Your task to perform on an android device: turn on translation in the chrome app Image 0: 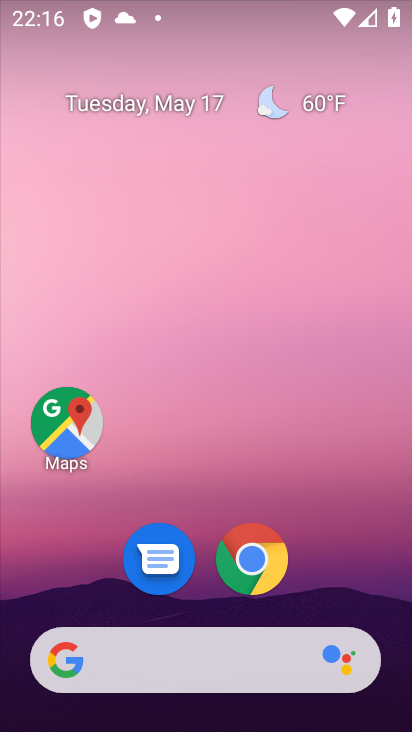
Step 0: click (252, 563)
Your task to perform on an android device: turn on translation in the chrome app Image 1: 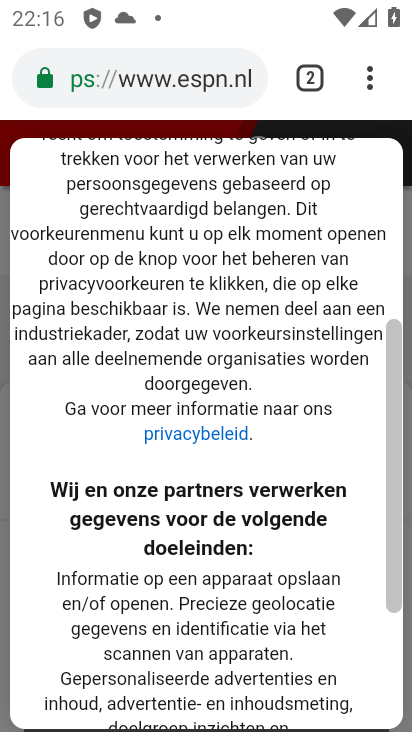
Step 1: drag from (374, 69) to (153, 617)
Your task to perform on an android device: turn on translation in the chrome app Image 2: 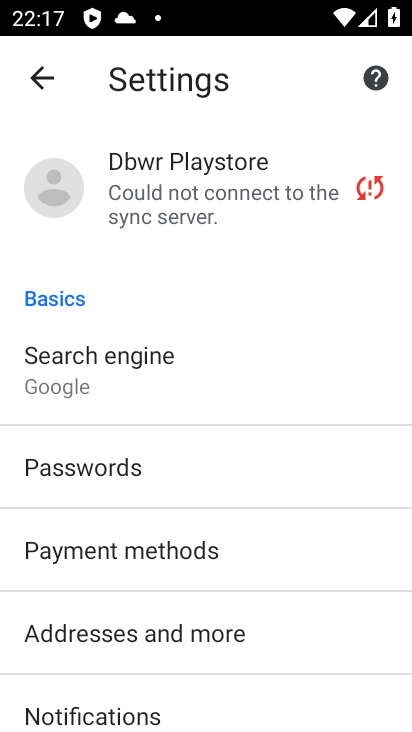
Step 2: drag from (261, 537) to (288, 56)
Your task to perform on an android device: turn on translation in the chrome app Image 3: 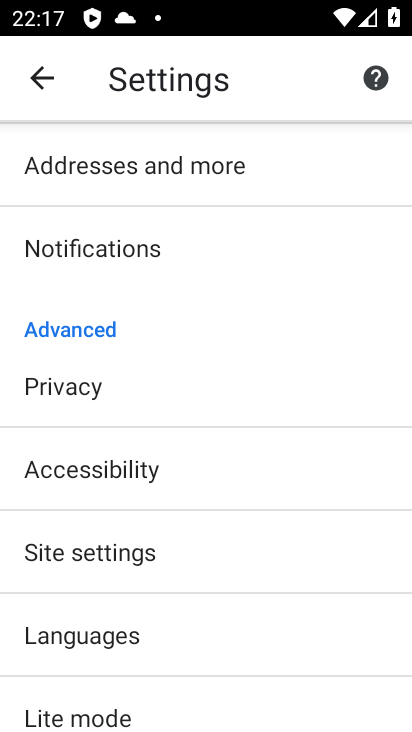
Step 3: drag from (187, 674) to (218, 452)
Your task to perform on an android device: turn on translation in the chrome app Image 4: 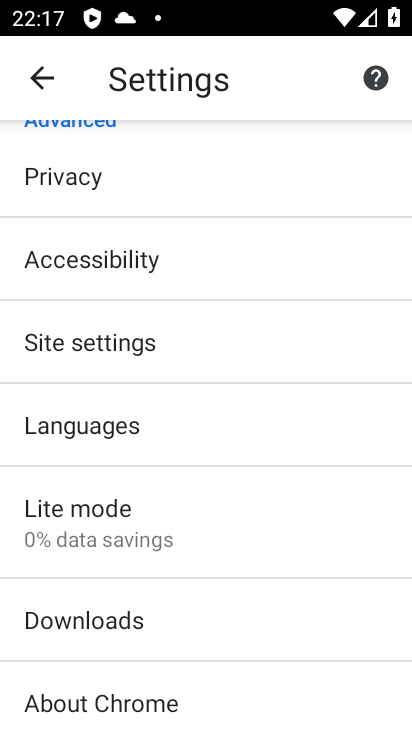
Step 4: click (108, 418)
Your task to perform on an android device: turn on translation in the chrome app Image 5: 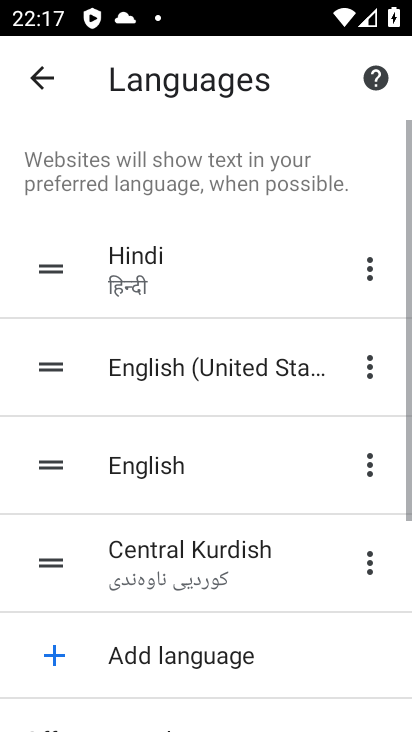
Step 5: drag from (254, 634) to (224, 185)
Your task to perform on an android device: turn on translation in the chrome app Image 6: 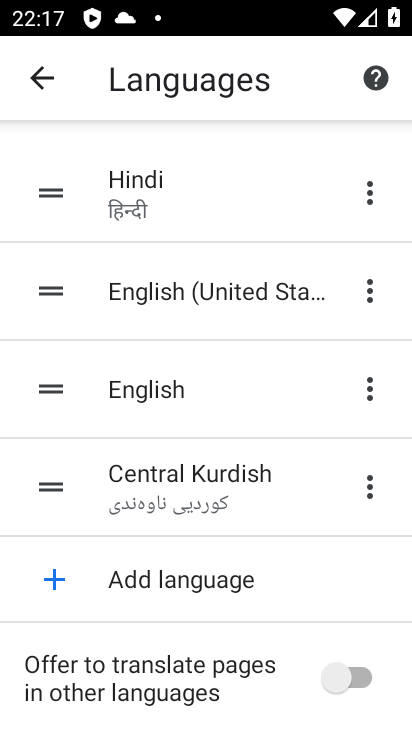
Step 6: click (349, 679)
Your task to perform on an android device: turn on translation in the chrome app Image 7: 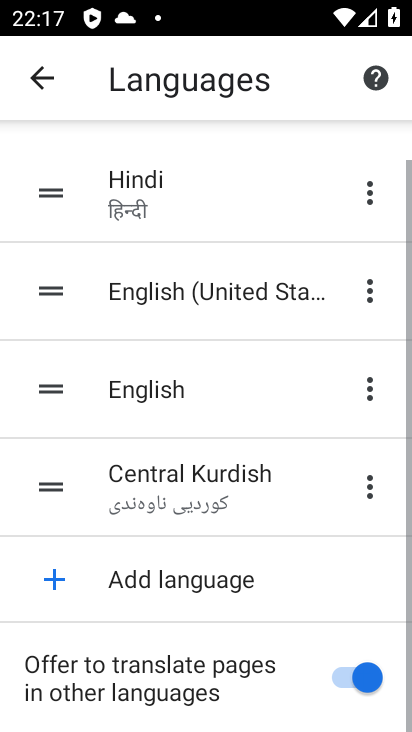
Step 7: task complete